Your task to perform on an android device: find which apps use the phone's location Image 0: 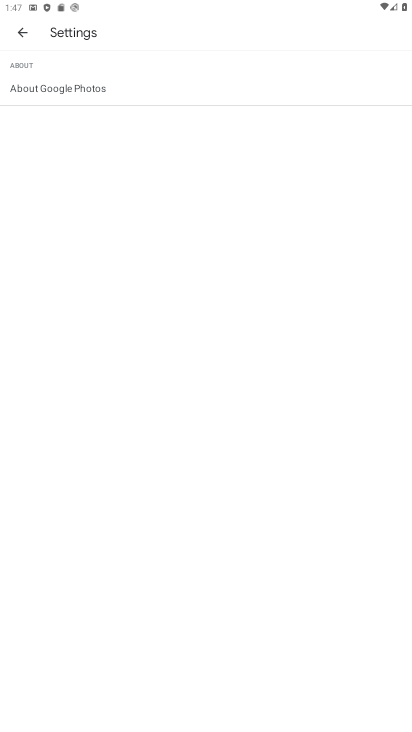
Step 0: press home button
Your task to perform on an android device: find which apps use the phone's location Image 1: 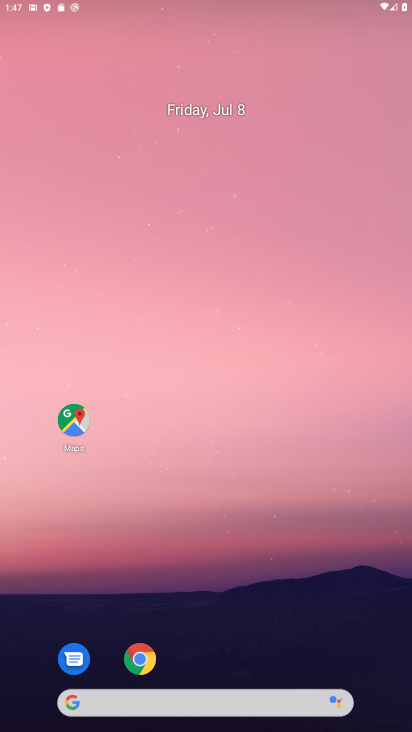
Step 1: drag from (228, 615) to (178, 2)
Your task to perform on an android device: find which apps use the phone's location Image 2: 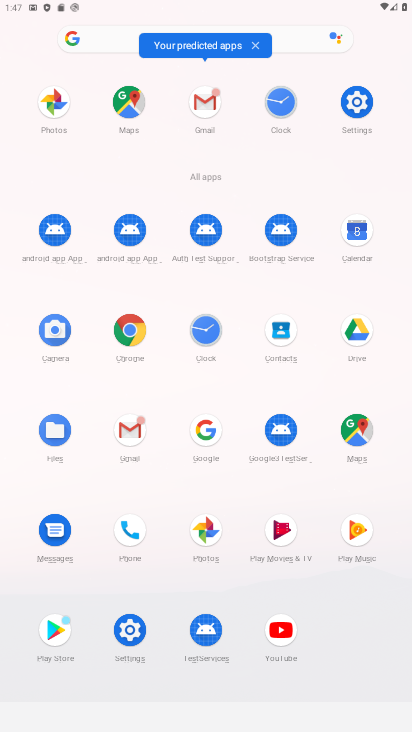
Step 2: click (133, 526)
Your task to perform on an android device: find which apps use the phone's location Image 3: 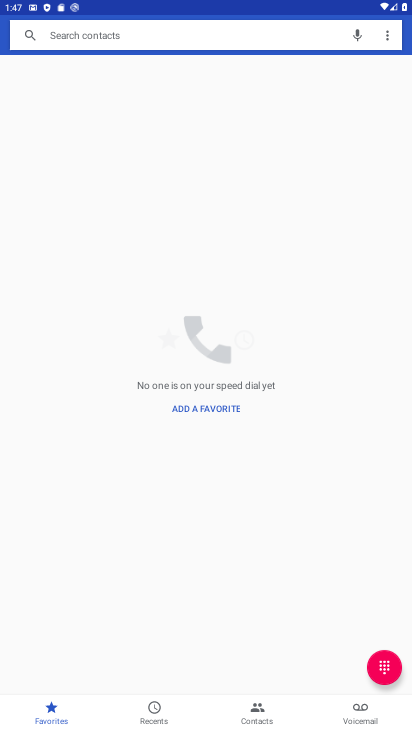
Step 3: press back button
Your task to perform on an android device: find which apps use the phone's location Image 4: 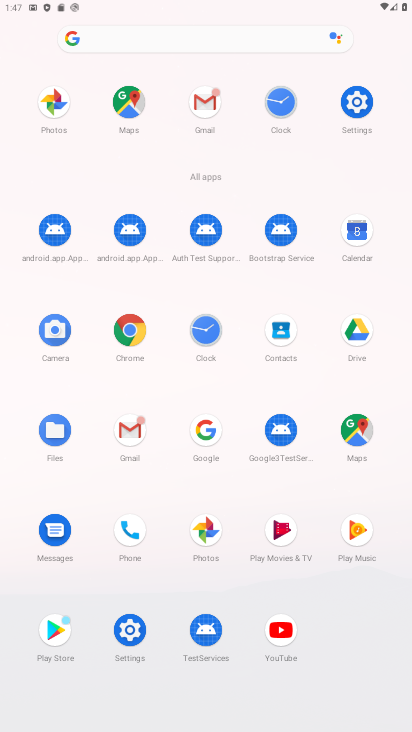
Step 4: click (128, 518)
Your task to perform on an android device: find which apps use the phone's location Image 5: 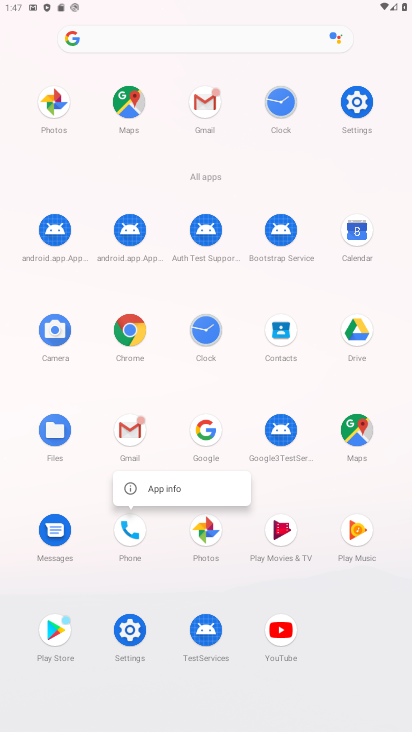
Step 5: click (182, 489)
Your task to perform on an android device: find which apps use the phone's location Image 6: 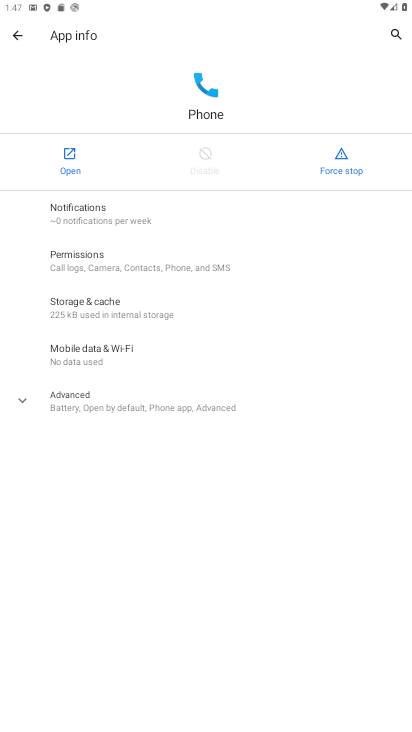
Step 6: click (90, 201)
Your task to perform on an android device: find which apps use the phone's location Image 7: 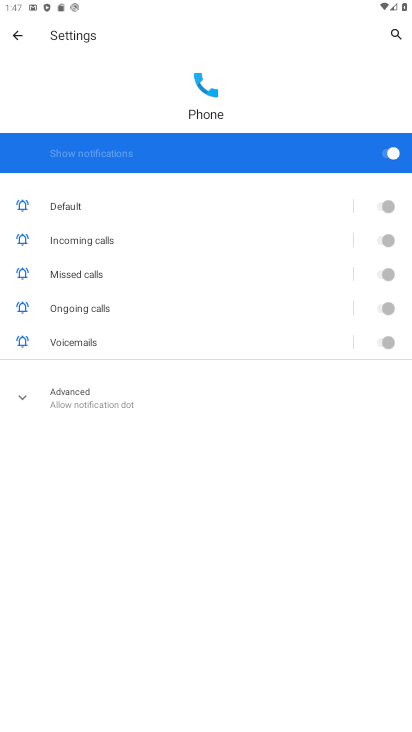
Step 7: click (7, 40)
Your task to perform on an android device: find which apps use the phone's location Image 8: 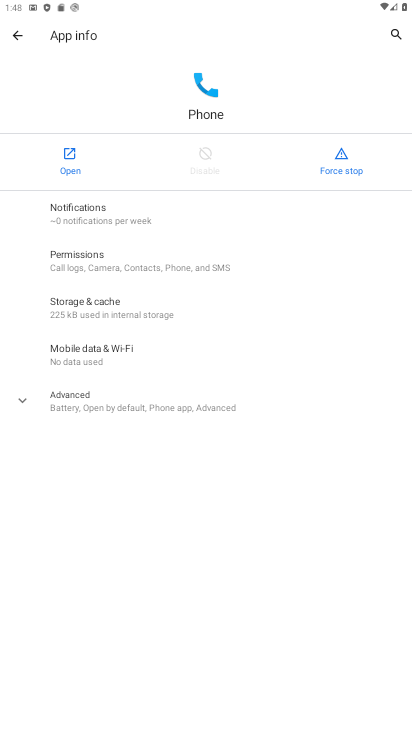
Step 8: click (124, 270)
Your task to perform on an android device: find which apps use the phone's location Image 9: 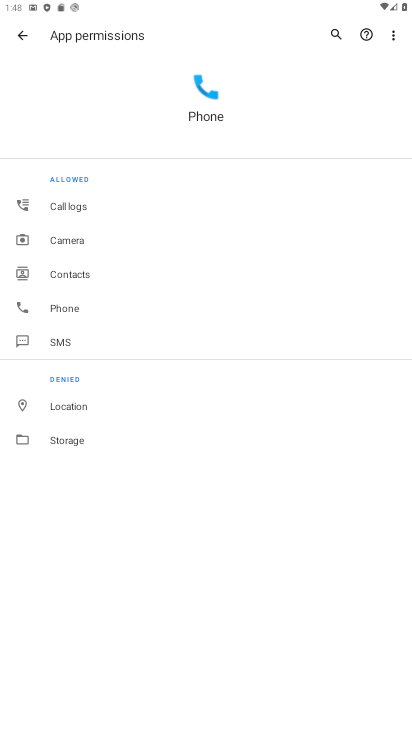
Step 9: click (89, 409)
Your task to perform on an android device: find which apps use the phone's location Image 10: 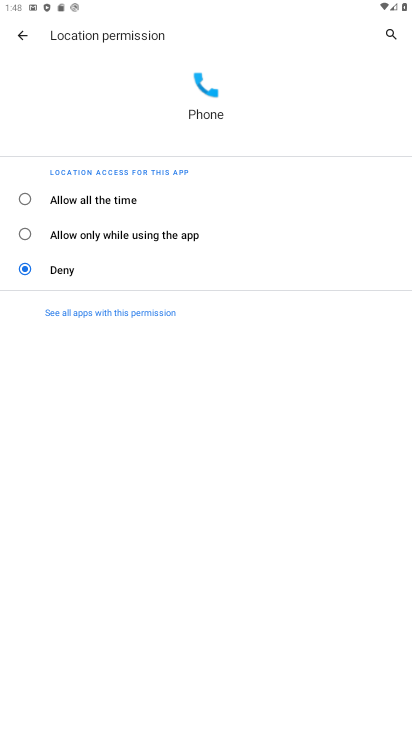
Step 10: click (56, 309)
Your task to perform on an android device: find which apps use the phone's location Image 11: 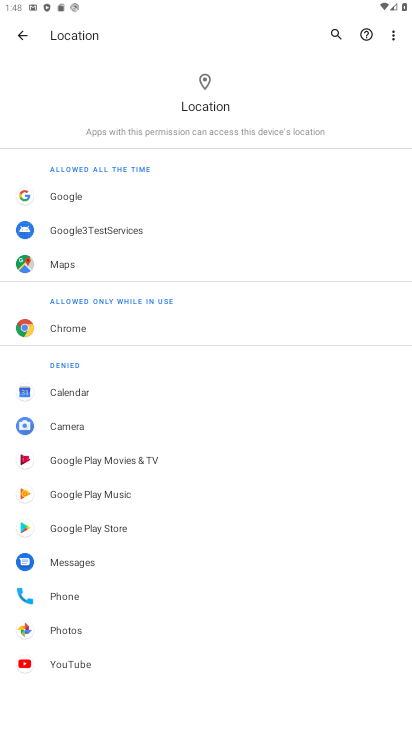
Step 11: task complete